Your task to perform on an android device: Open Yahoo.com Image 0: 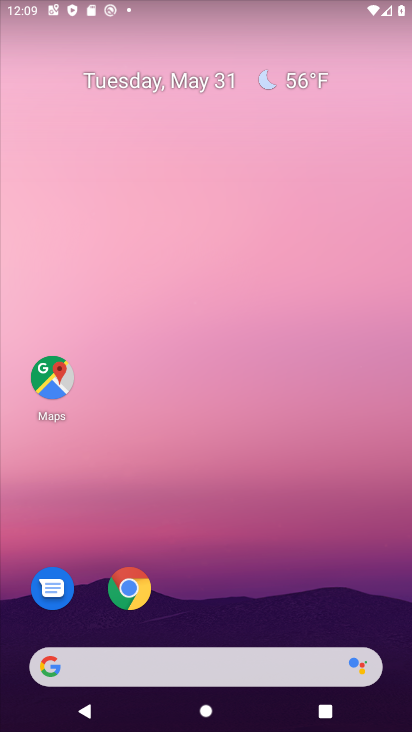
Step 0: click (136, 598)
Your task to perform on an android device: Open Yahoo.com Image 1: 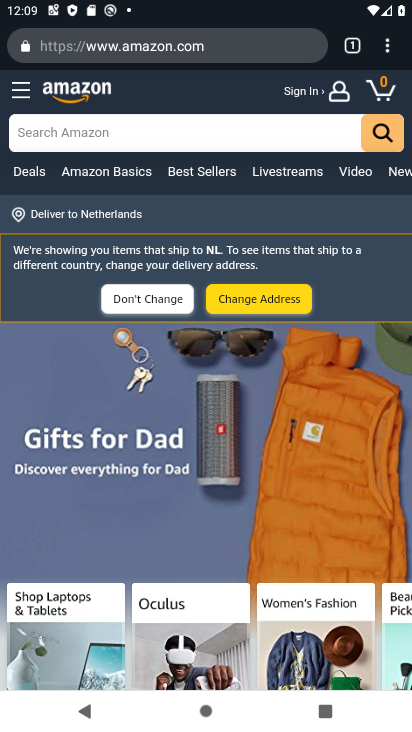
Step 1: press back button
Your task to perform on an android device: Open Yahoo.com Image 2: 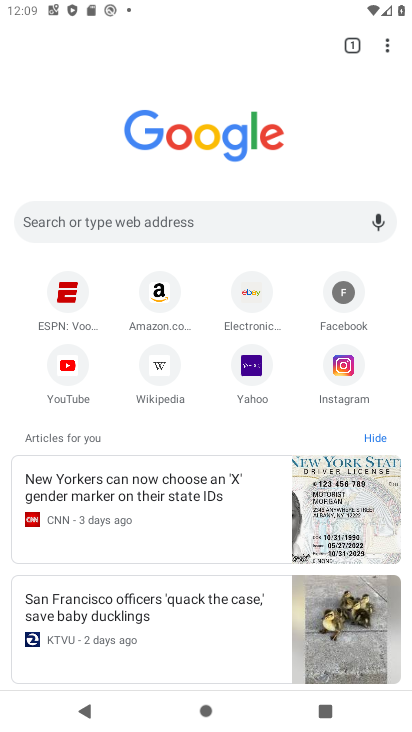
Step 2: click (253, 370)
Your task to perform on an android device: Open Yahoo.com Image 3: 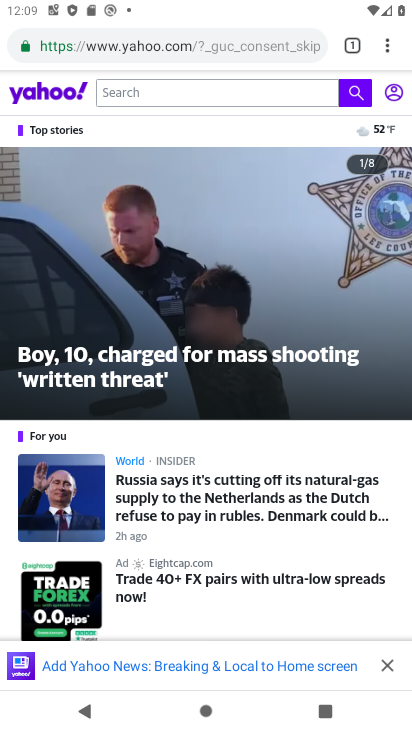
Step 3: task complete